Your task to perform on an android device: turn on the 24-hour format for clock Image 0: 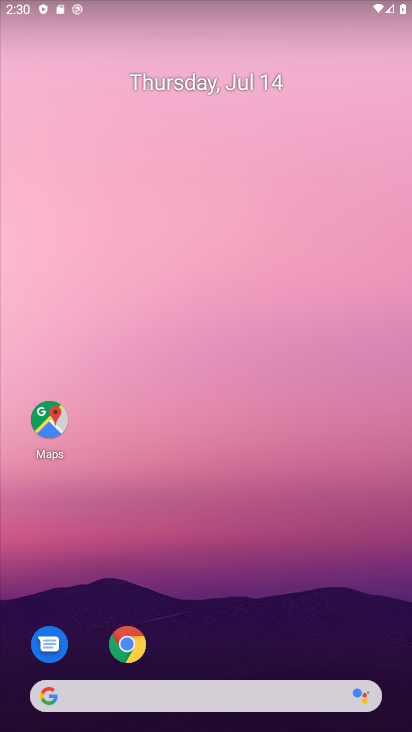
Step 0: drag from (276, 611) to (188, 52)
Your task to perform on an android device: turn on the 24-hour format for clock Image 1: 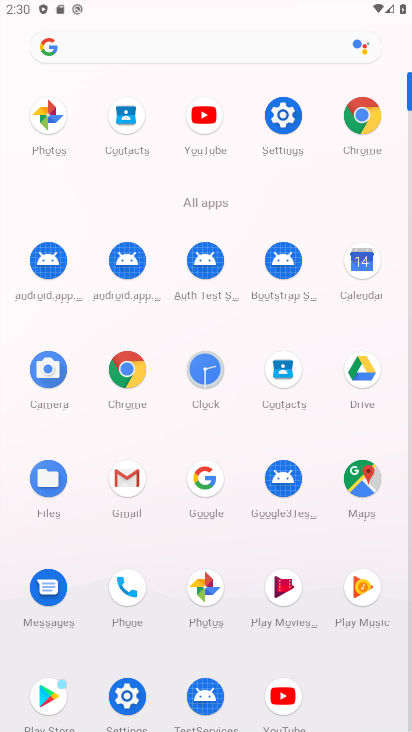
Step 1: click (211, 369)
Your task to perform on an android device: turn on the 24-hour format for clock Image 2: 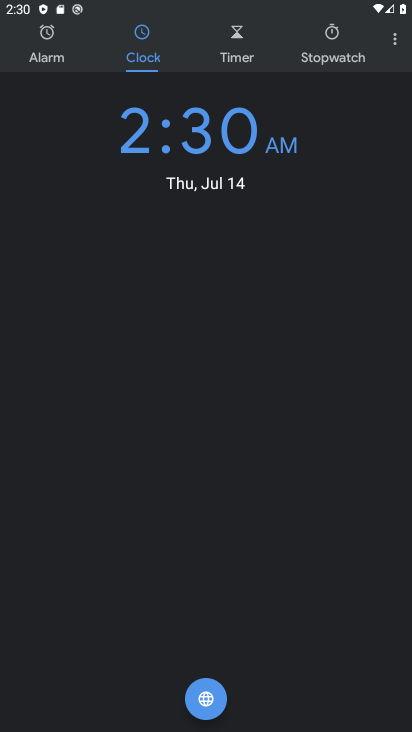
Step 2: click (402, 36)
Your task to perform on an android device: turn on the 24-hour format for clock Image 3: 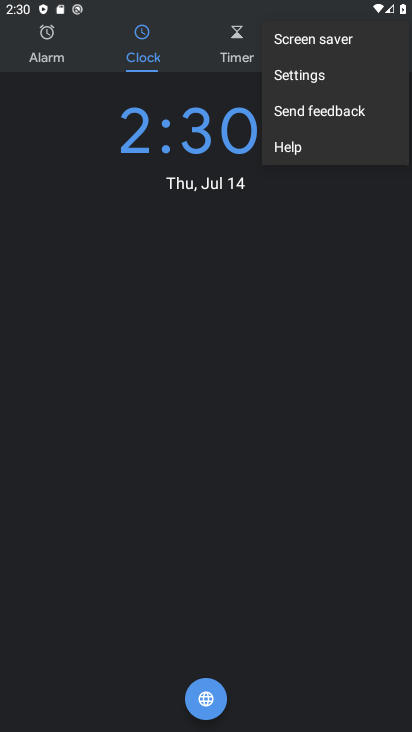
Step 3: click (361, 77)
Your task to perform on an android device: turn on the 24-hour format for clock Image 4: 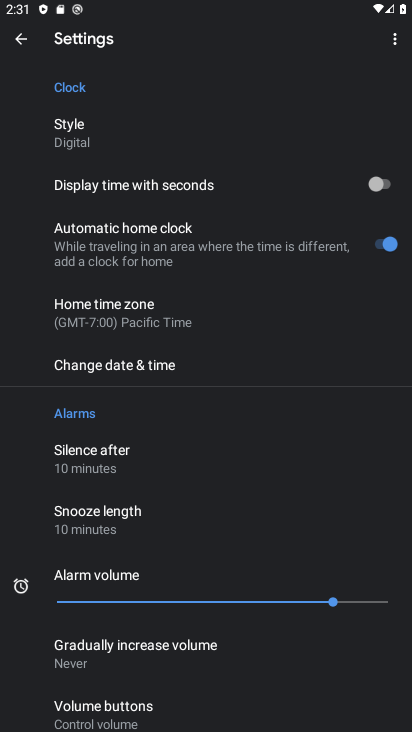
Step 4: click (251, 365)
Your task to perform on an android device: turn on the 24-hour format for clock Image 5: 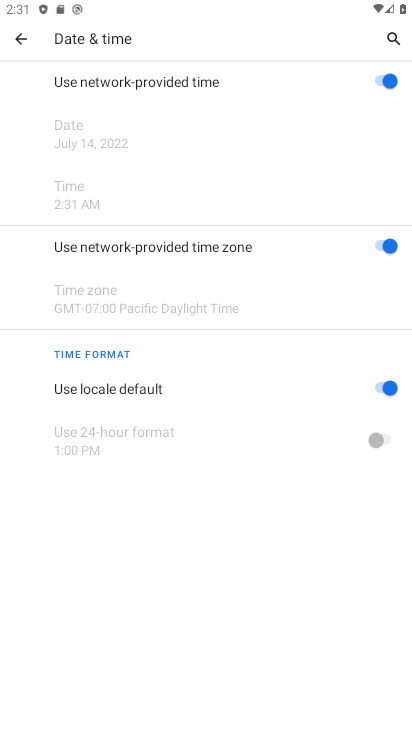
Step 5: click (386, 394)
Your task to perform on an android device: turn on the 24-hour format for clock Image 6: 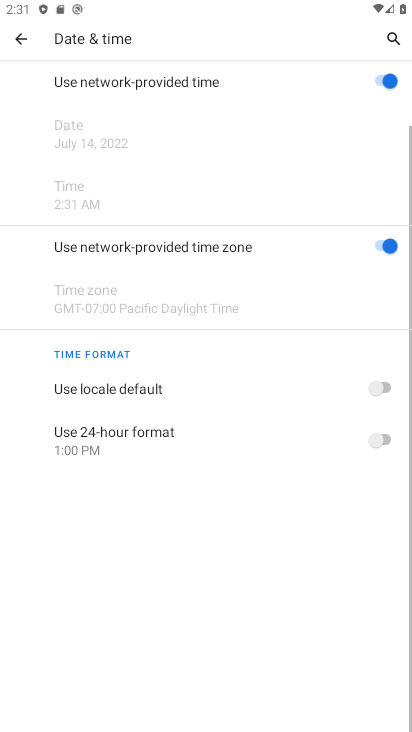
Step 6: click (382, 439)
Your task to perform on an android device: turn on the 24-hour format for clock Image 7: 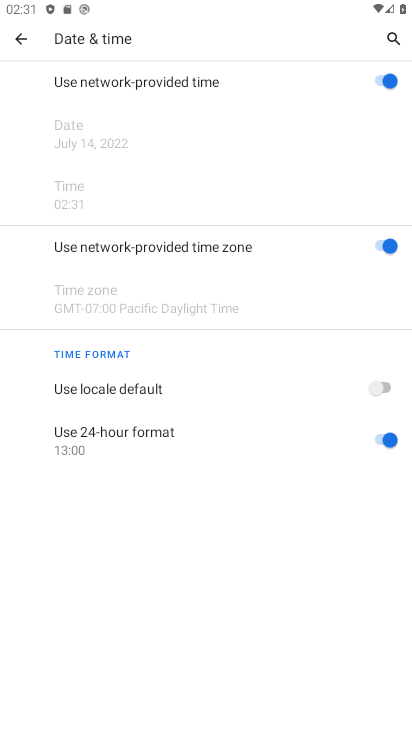
Step 7: task complete